Your task to perform on an android device: open the mobile data screen to see how much data has been used Image 0: 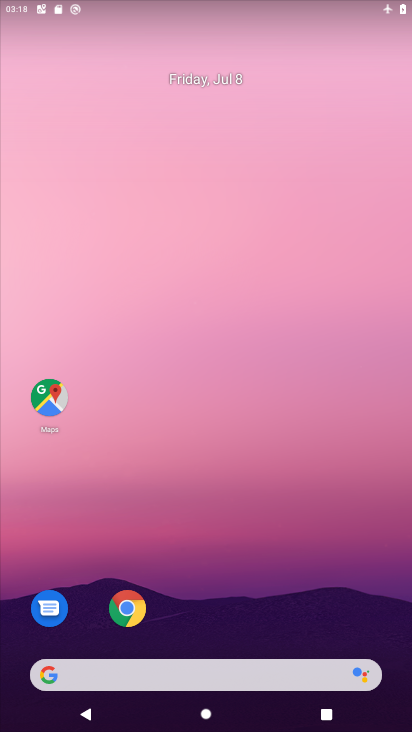
Step 0: drag from (206, 480) to (186, 202)
Your task to perform on an android device: open the mobile data screen to see how much data has been used Image 1: 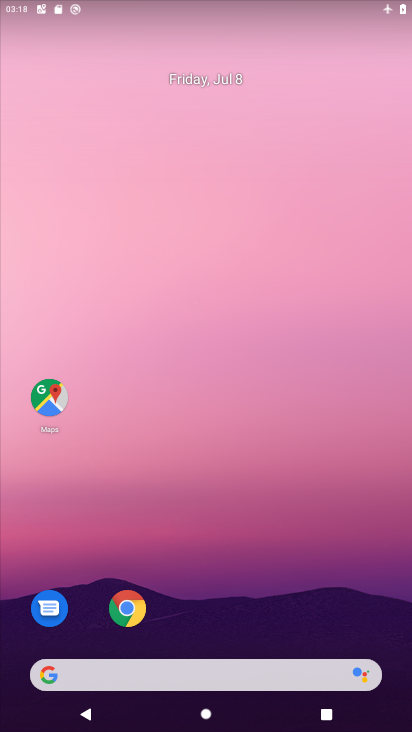
Step 1: drag from (177, 562) to (186, 71)
Your task to perform on an android device: open the mobile data screen to see how much data has been used Image 2: 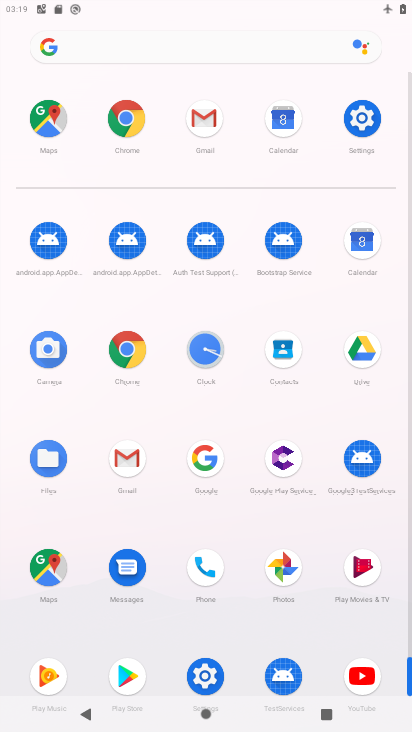
Step 2: click (367, 109)
Your task to perform on an android device: open the mobile data screen to see how much data has been used Image 3: 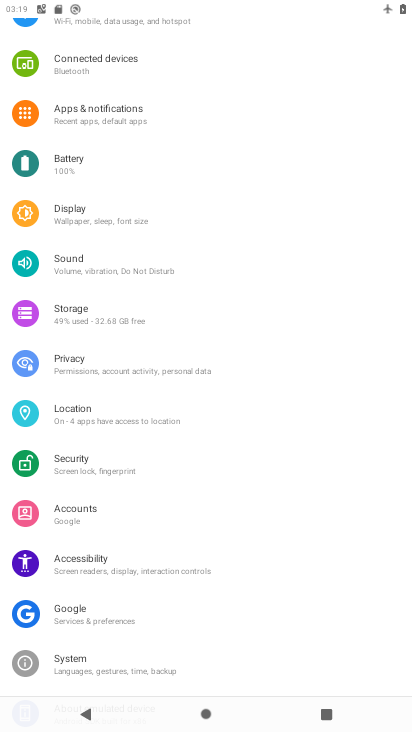
Step 3: drag from (103, 66) to (124, 319)
Your task to perform on an android device: open the mobile data screen to see how much data has been used Image 4: 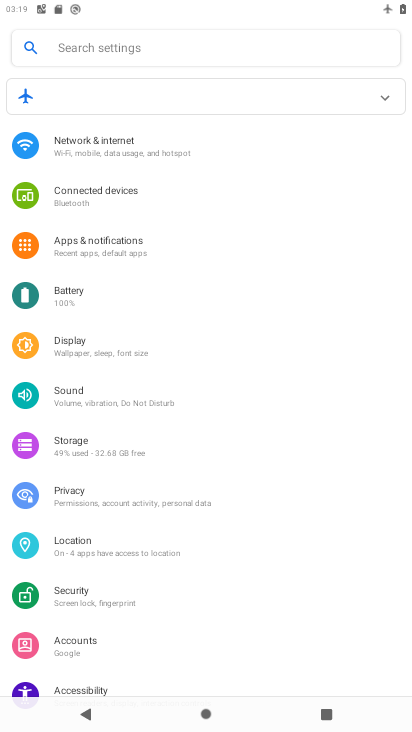
Step 4: click (108, 139)
Your task to perform on an android device: open the mobile data screen to see how much data has been used Image 5: 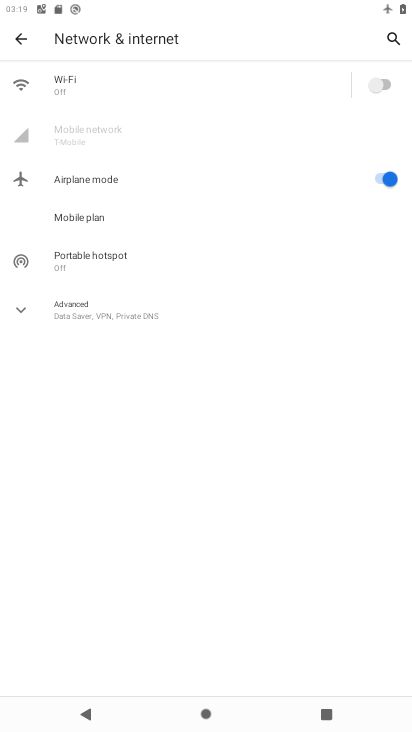
Step 5: click (77, 130)
Your task to perform on an android device: open the mobile data screen to see how much data has been used Image 6: 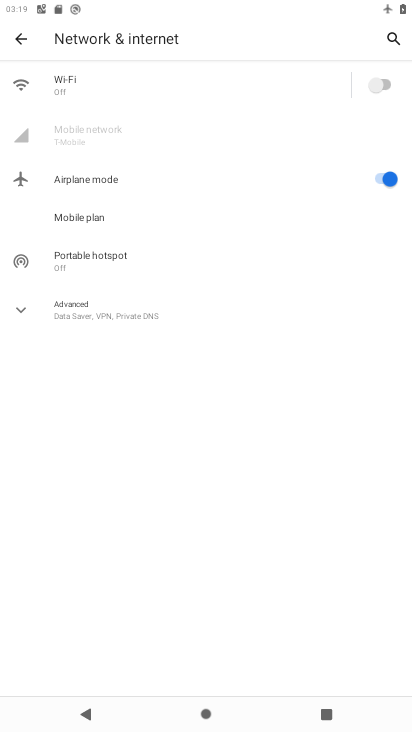
Step 6: click (77, 130)
Your task to perform on an android device: open the mobile data screen to see how much data has been used Image 7: 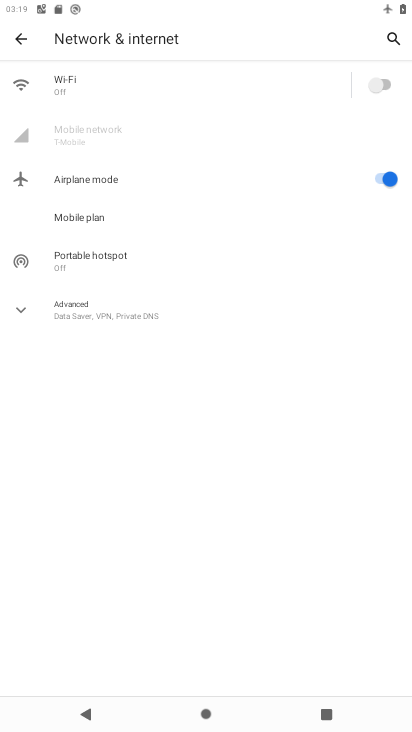
Step 7: task complete